Your task to perform on an android device: turn on notifications settings in the gmail app Image 0: 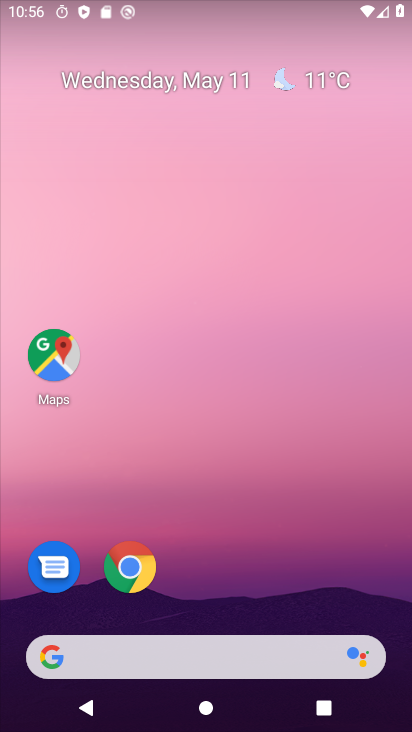
Step 0: drag from (300, 474) to (168, 158)
Your task to perform on an android device: turn on notifications settings in the gmail app Image 1: 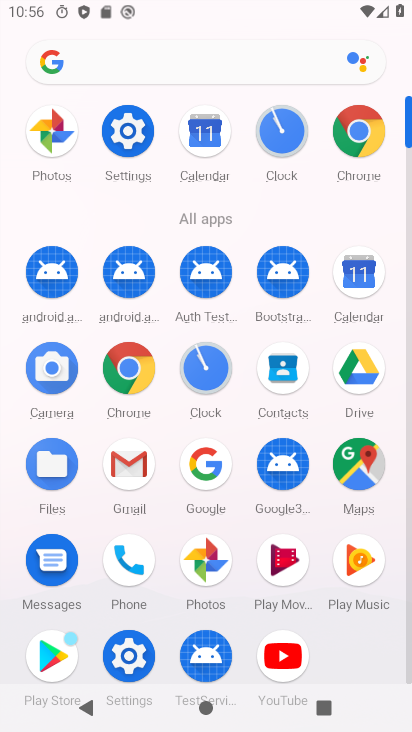
Step 1: click (140, 465)
Your task to perform on an android device: turn on notifications settings in the gmail app Image 2: 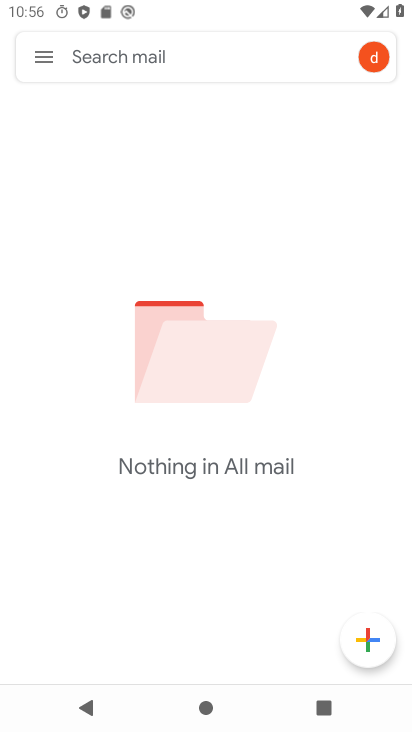
Step 2: click (41, 53)
Your task to perform on an android device: turn on notifications settings in the gmail app Image 3: 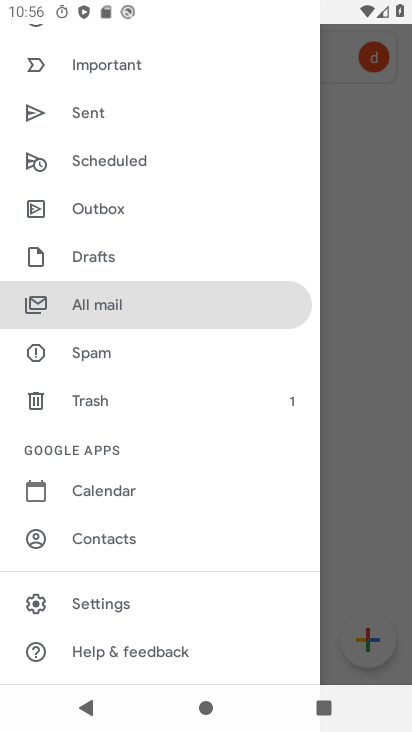
Step 3: click (127, 593)
Your task to perform on an android device: turn on notifications settings in the gmail app Image 4: 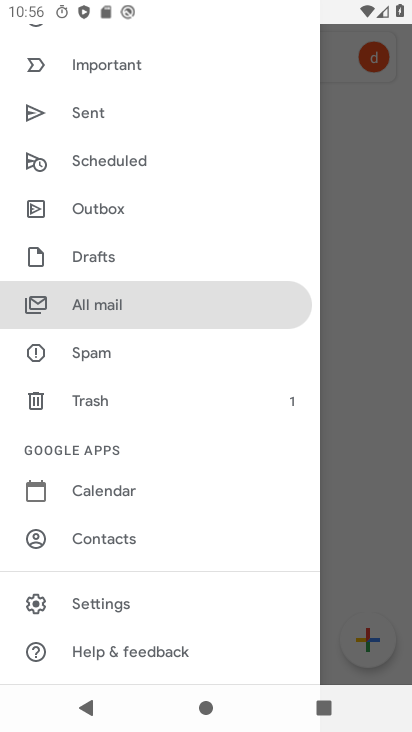
Step 4: click (96, 601)
Your task to perform on an android device: turn on notifications settings in the gmail app Image 5: 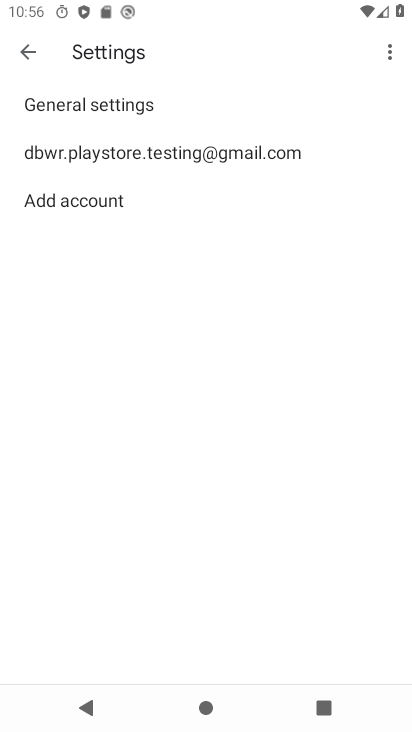
Step 5: click (133, 158)
Your task to perform on an android device: turn on notifications settings in the gmail app Image 6: 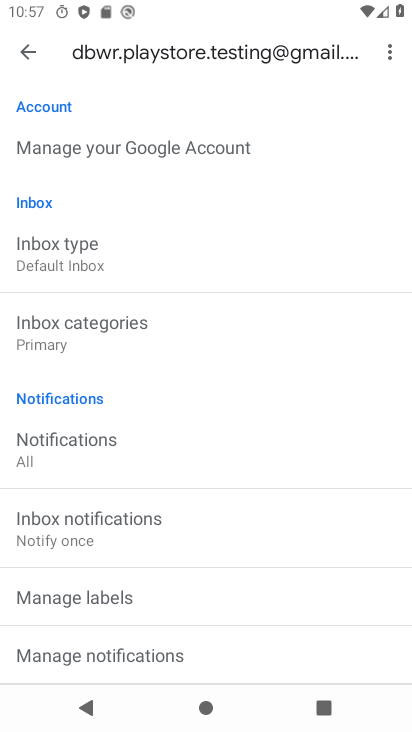
Step 6: click (96, 448)
Your task to perform on an android device: turn on notifications settings in the gmail app Image 7: 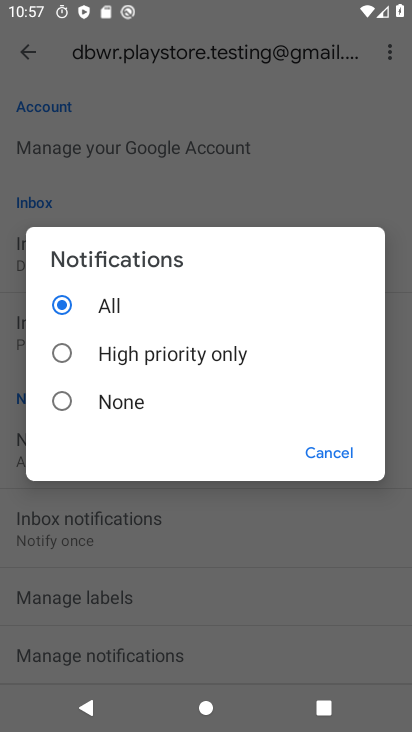
Step 7: task complete